Your task to perform on an android device: toggle sleep mode Image 0: 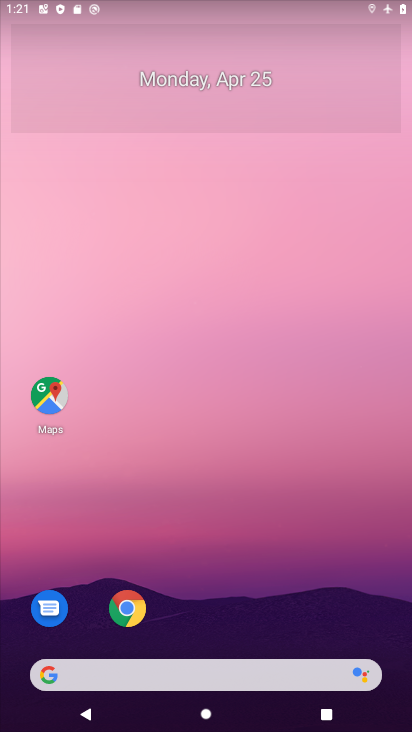
Step 0: drag from (215, 630) to (168, 27)
Your task to perform on an android device: toggle sleep mode Image 1: 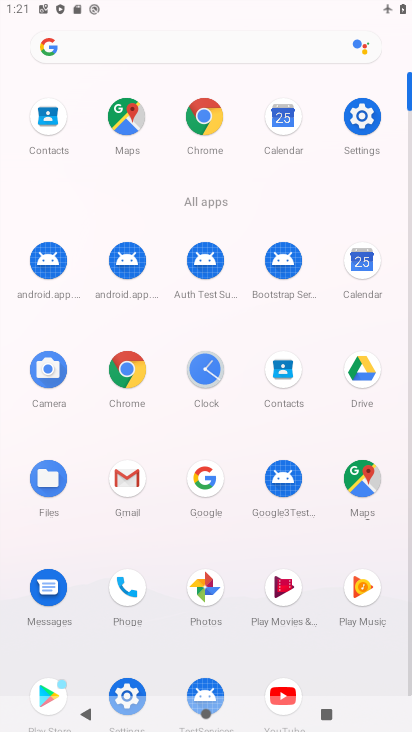
Step 1: click (369, 130)
Your task to perform on an android device: toggle sleep mode Image 2: 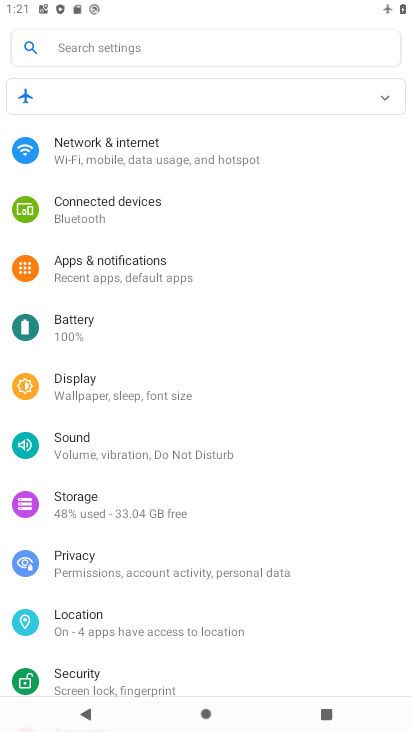
Step 2: click (193, 390)
Your task to perform on an android device: toggle sleep mode Image 3: 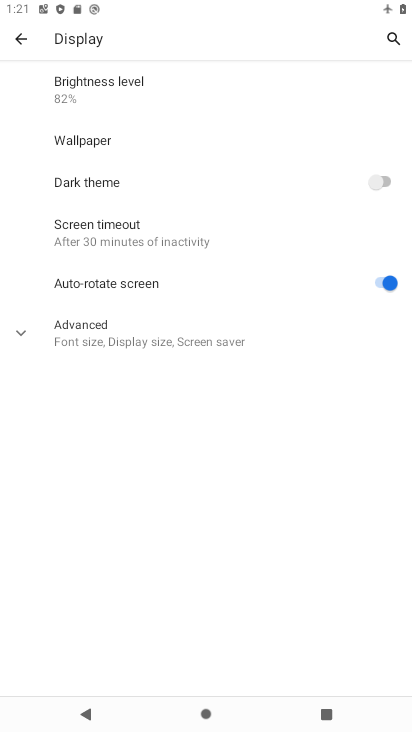
Step 3: task complete